Your task to perform on an android device: Add "razer nari" to the cart on amazon Image 0: 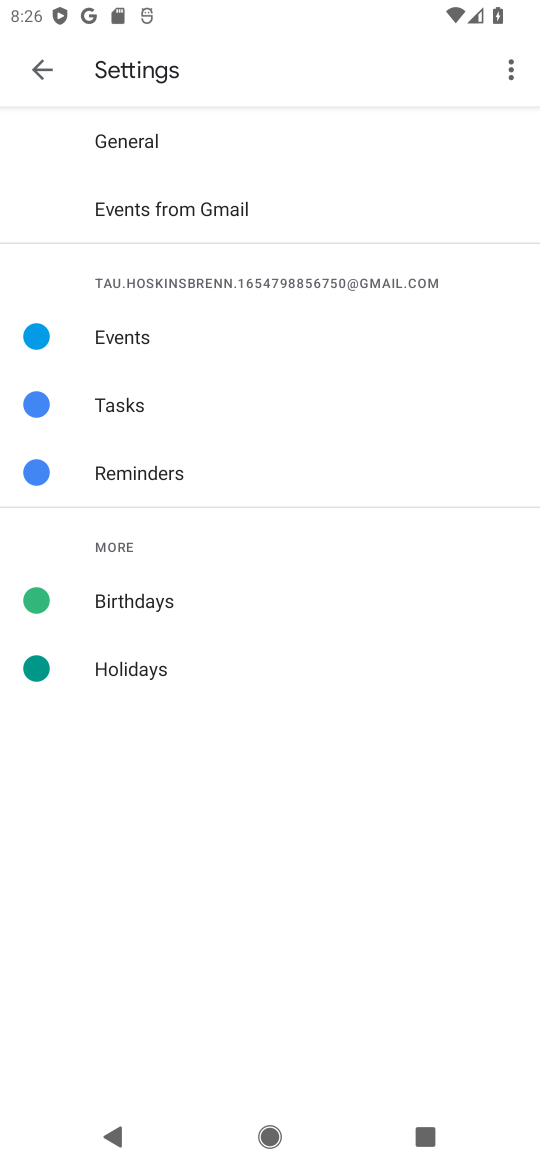
Step 0: press home button
Your task to perform on an android device: Add "razer nari" to the cart on amazon Image 1: 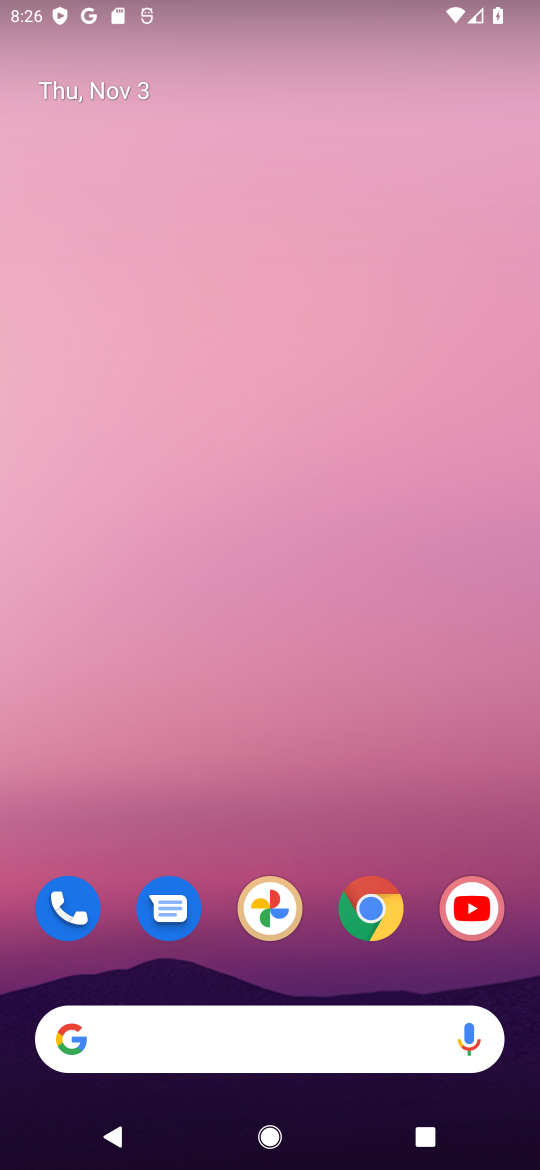
Step 1: click (370, 910)
Your task to perform on an android device: Add "razer nari" to the cart on amazon Image 2: 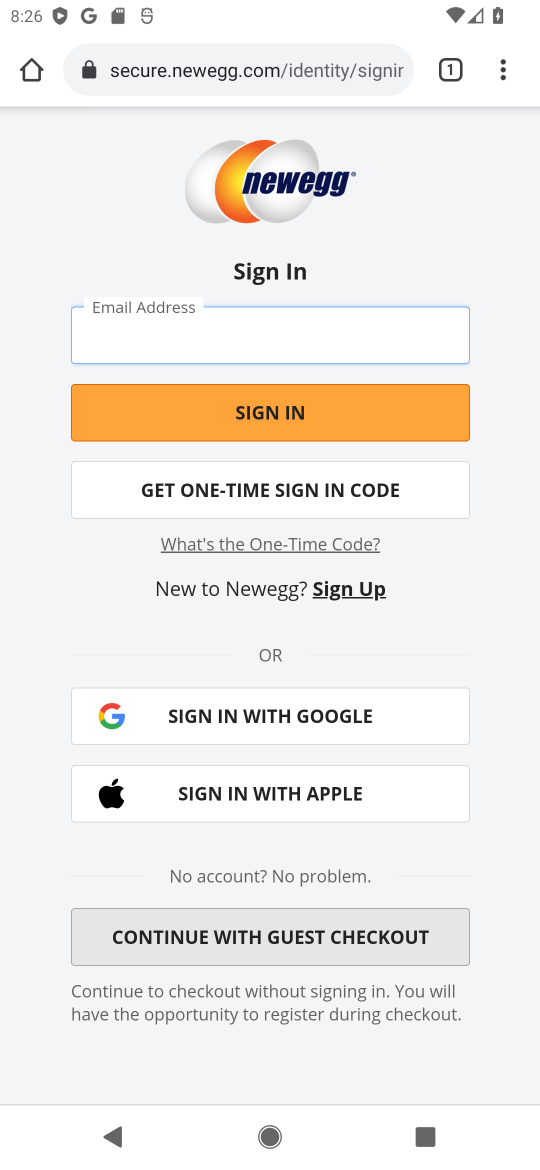
Step 2: click (287, 71)
Your task to perform on an android device: Add "razer nari" to the cart on amazon Image 3: 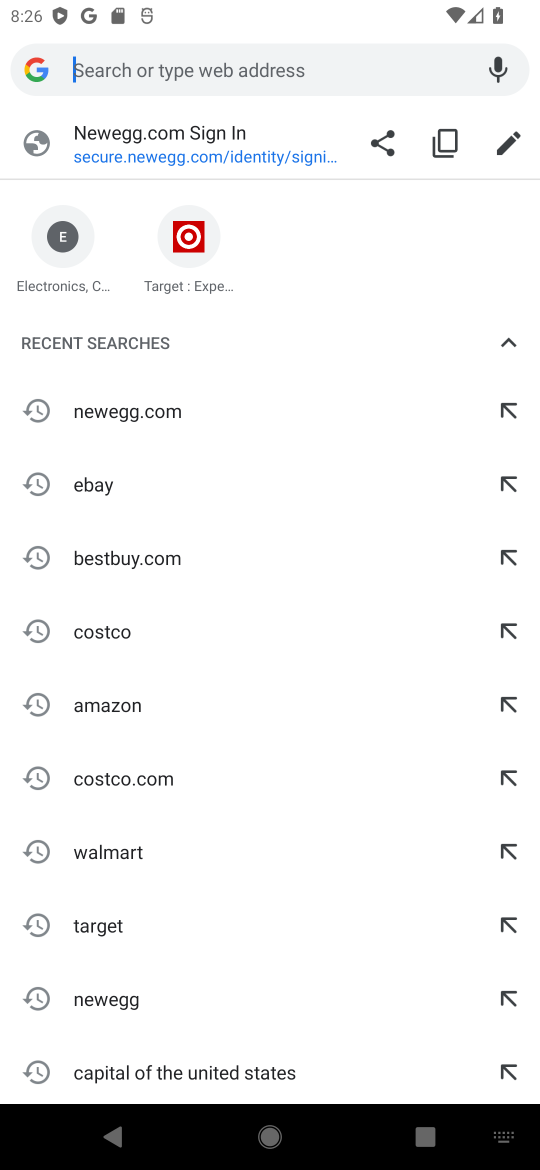
Step 3: click (114, 701)
Your task to perform on an android device: Add "razer nari" to the cart on amazon Image 4: 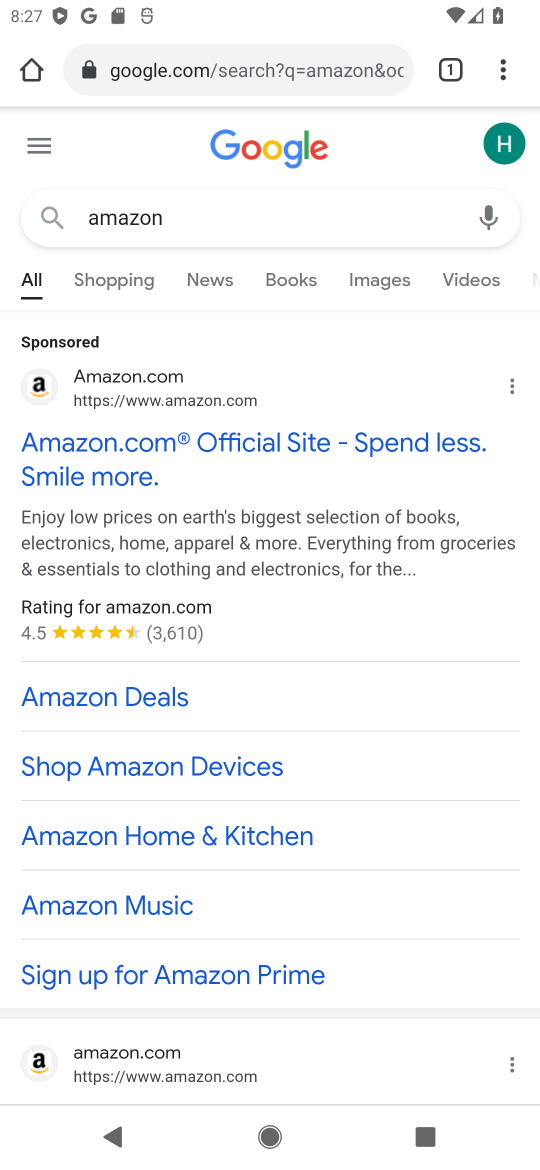
Step 4: click (145, 379)
Your task to perform on an android device: Add "razer nari" to the cart on amazon Image 5: 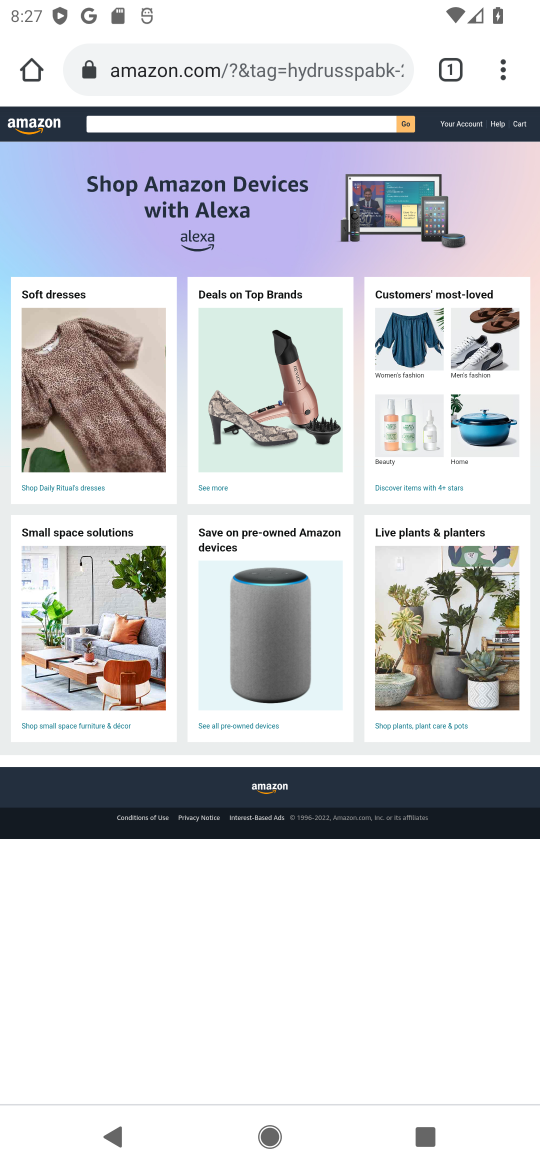
Step 5: click (278, 124)
Your task to perform on an android device: Add "razer nari" to the cart on amazon Image 6: 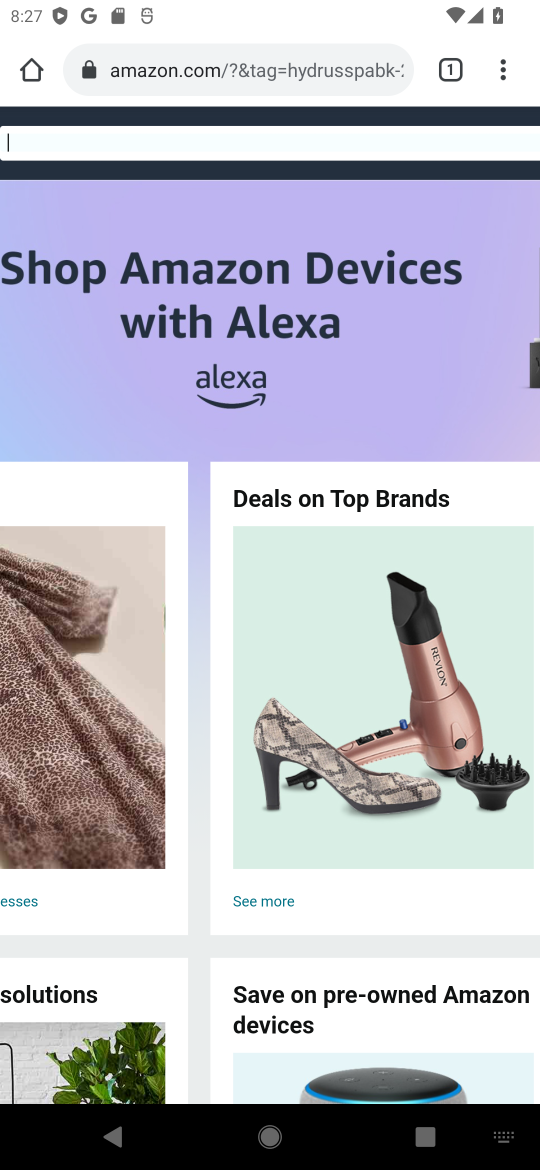
Step 6: type "razer nari"
Your task to perform on an android device: Add "razer nari" to the cart on amazon Image 7: 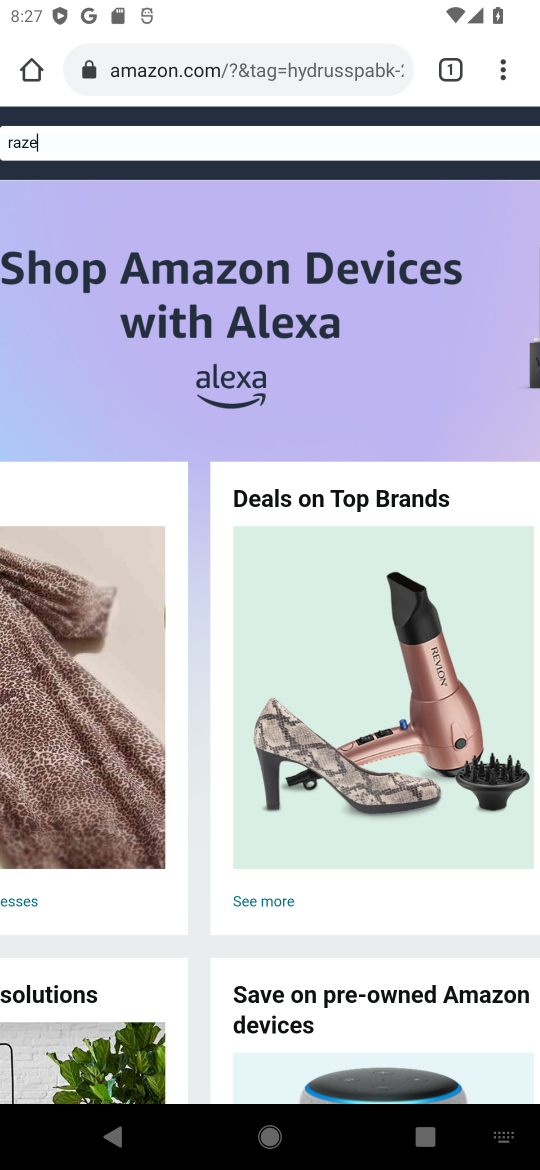
Step 7: press enter
Your task to perform on an android device: Add "razer nari" to the cart on amazon Image 8: 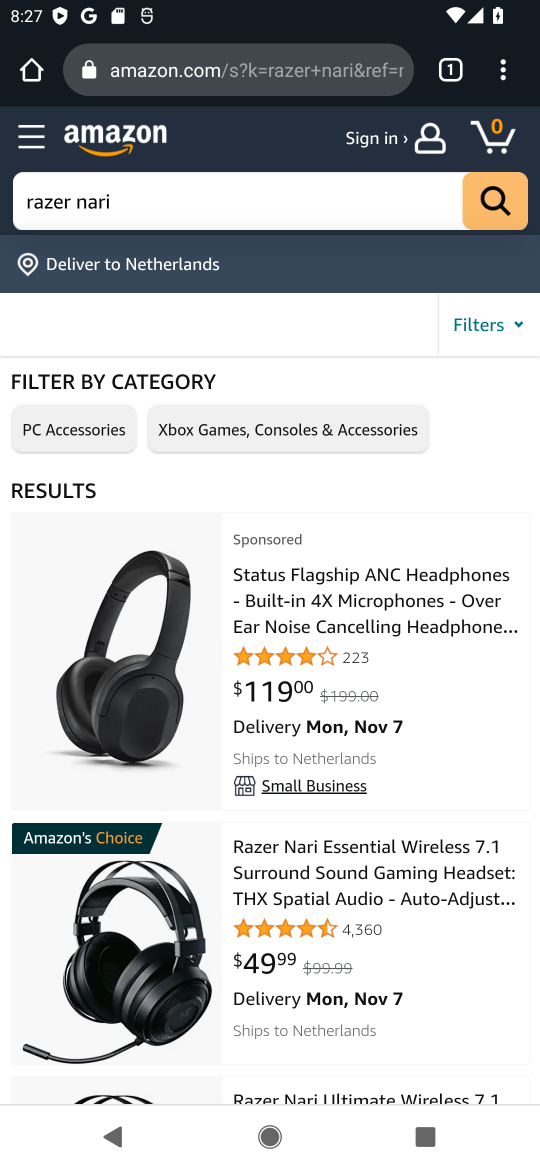
Step 8: click (121, 916)
Your task to perform on an android device: Add "razer nari" to the cart on amazon Image 9: 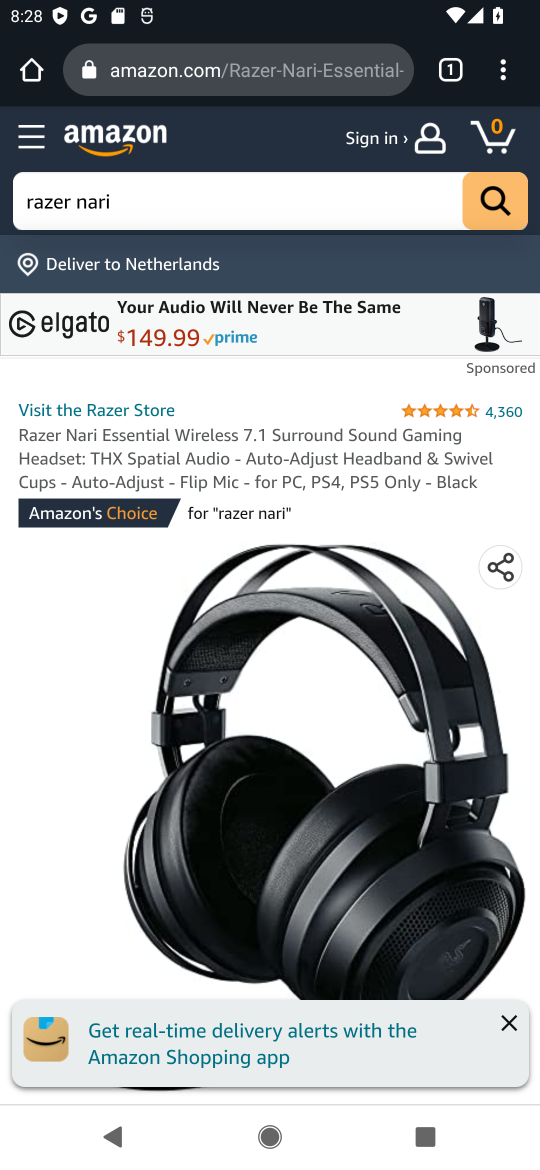
Step 9: drag from (297, 735) to (246, 354)
Your task to perform on an android device: Add "razer nari" to the cart on amazon Image 10: 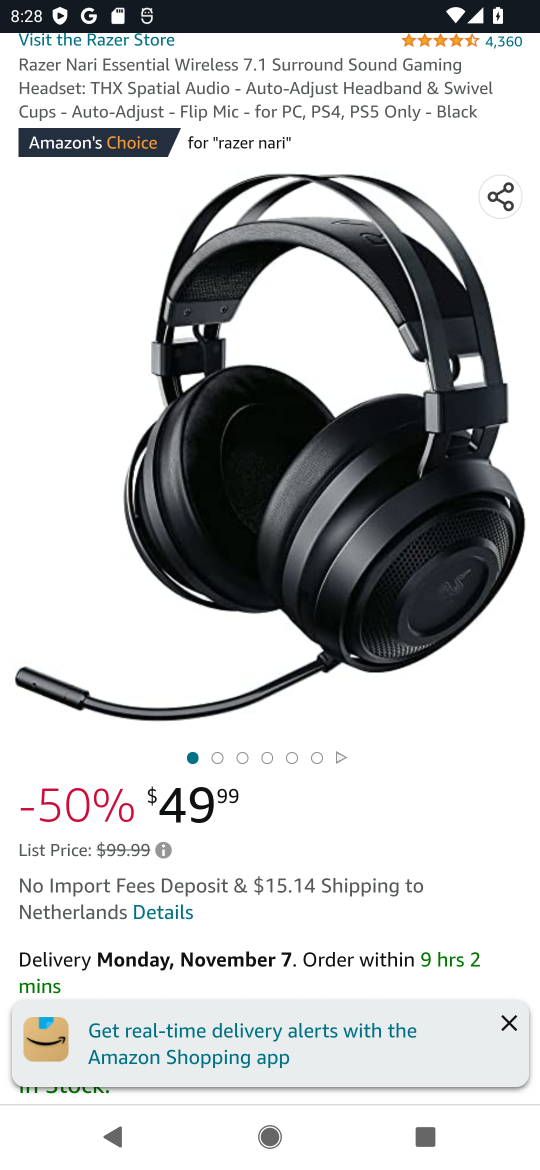
Step 10: drag from (309, 666) to (359, 447)
Your task to perform on an android device: Add "razer nari" to the cart on amazon Image 11: 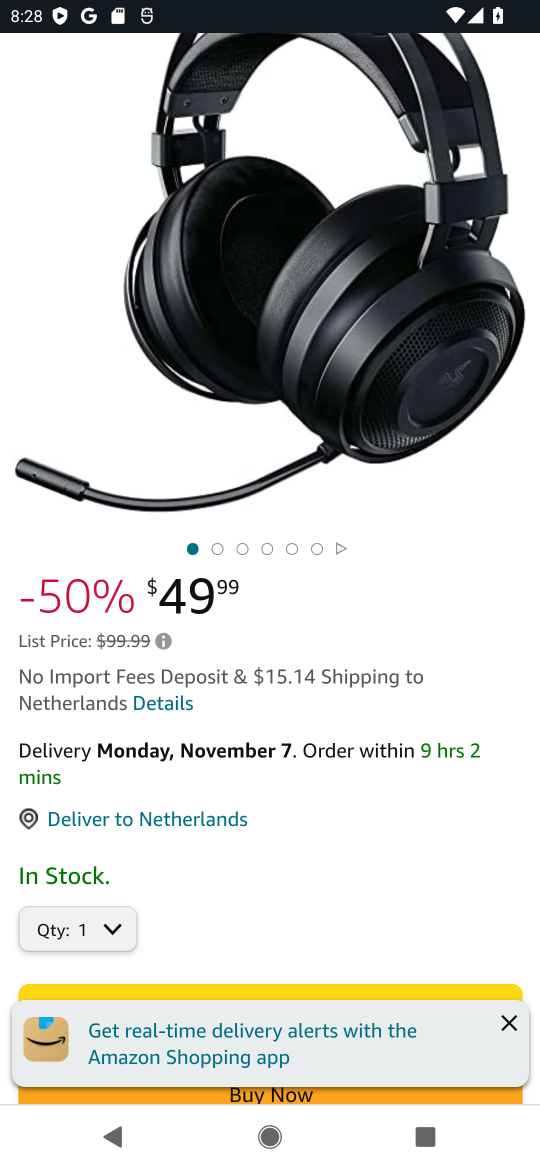
Step 11: drag from (380, 859) to (376, 496)
Your task to perform on an android device: Add "razer nari" to the cart on amazon Image 12: 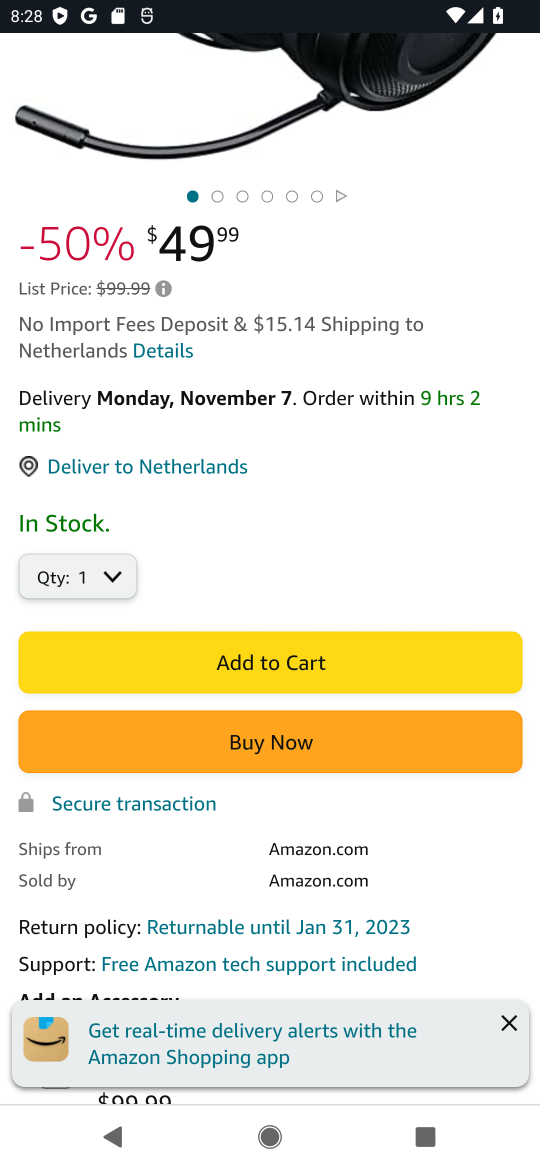
Step 12: click (382, 653)
Your task to perform on an android device: Add "razer nari" to the cart on amazon Image 13: 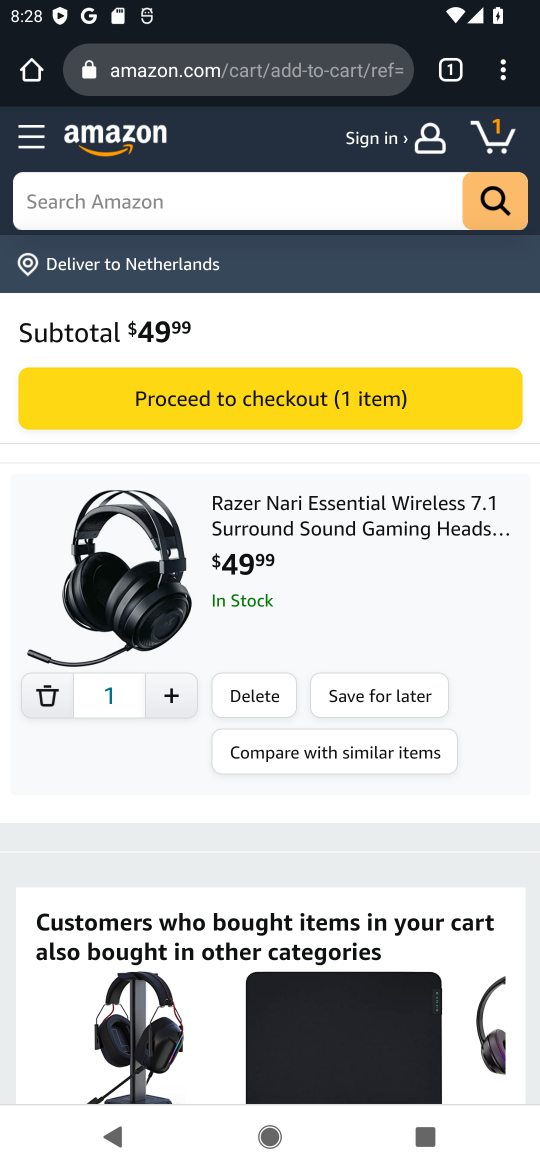
Step 13: task complete